Your task to perform on an android device: open wifi settings Image 0: 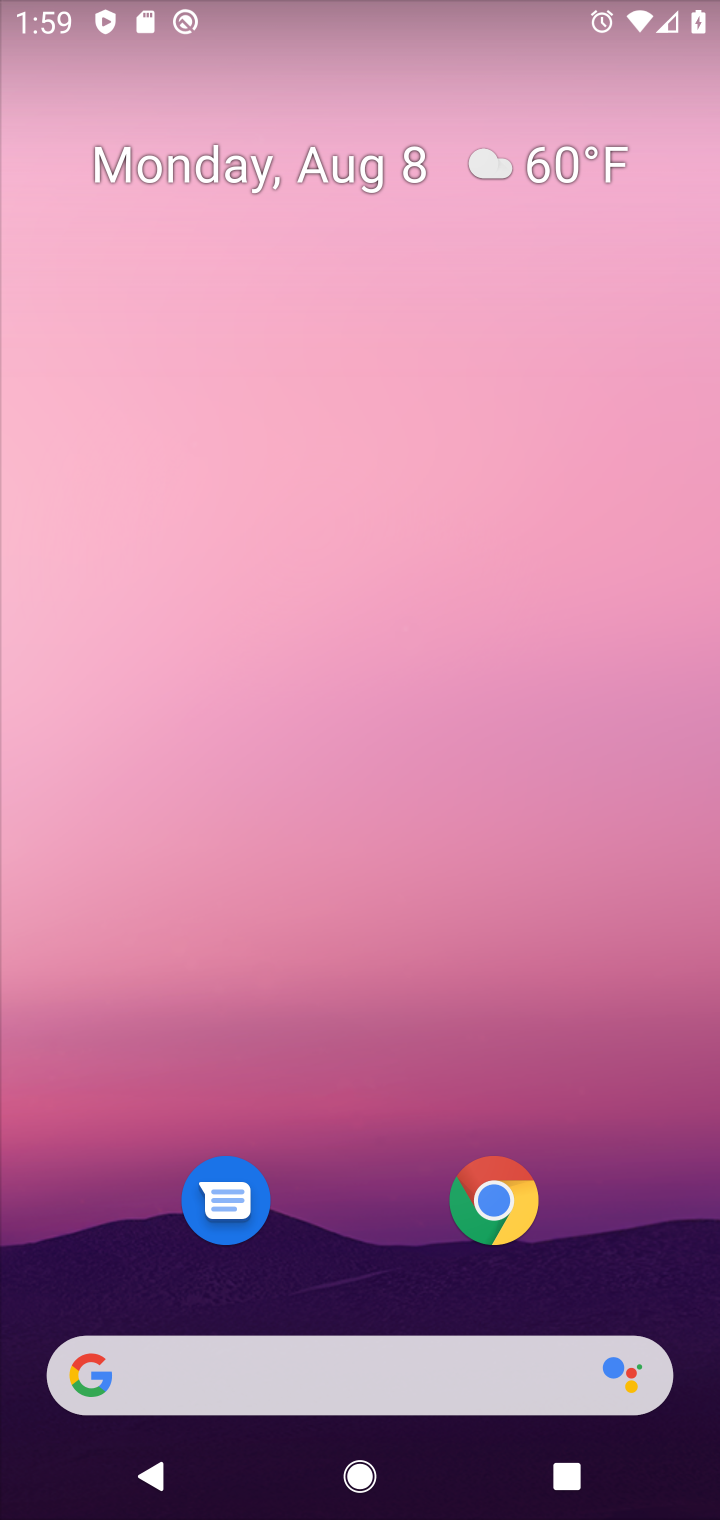
Step 0: drag from (385, 1261) to (452, 206)
Your task to perform on an android device: open wifi settings Image 1: 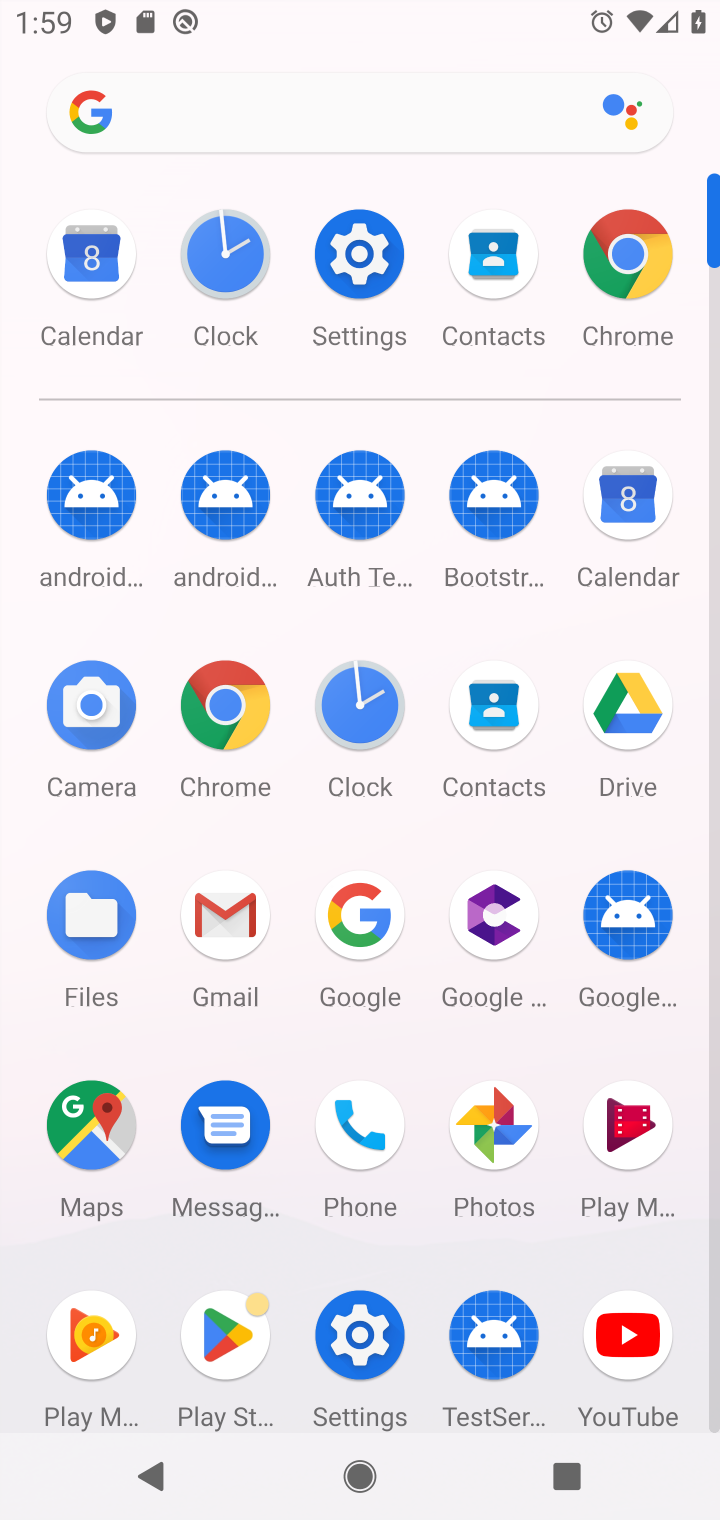
Step 1: click (355, 233)
Your task to perform on an android device: open wifi settings Image 2: 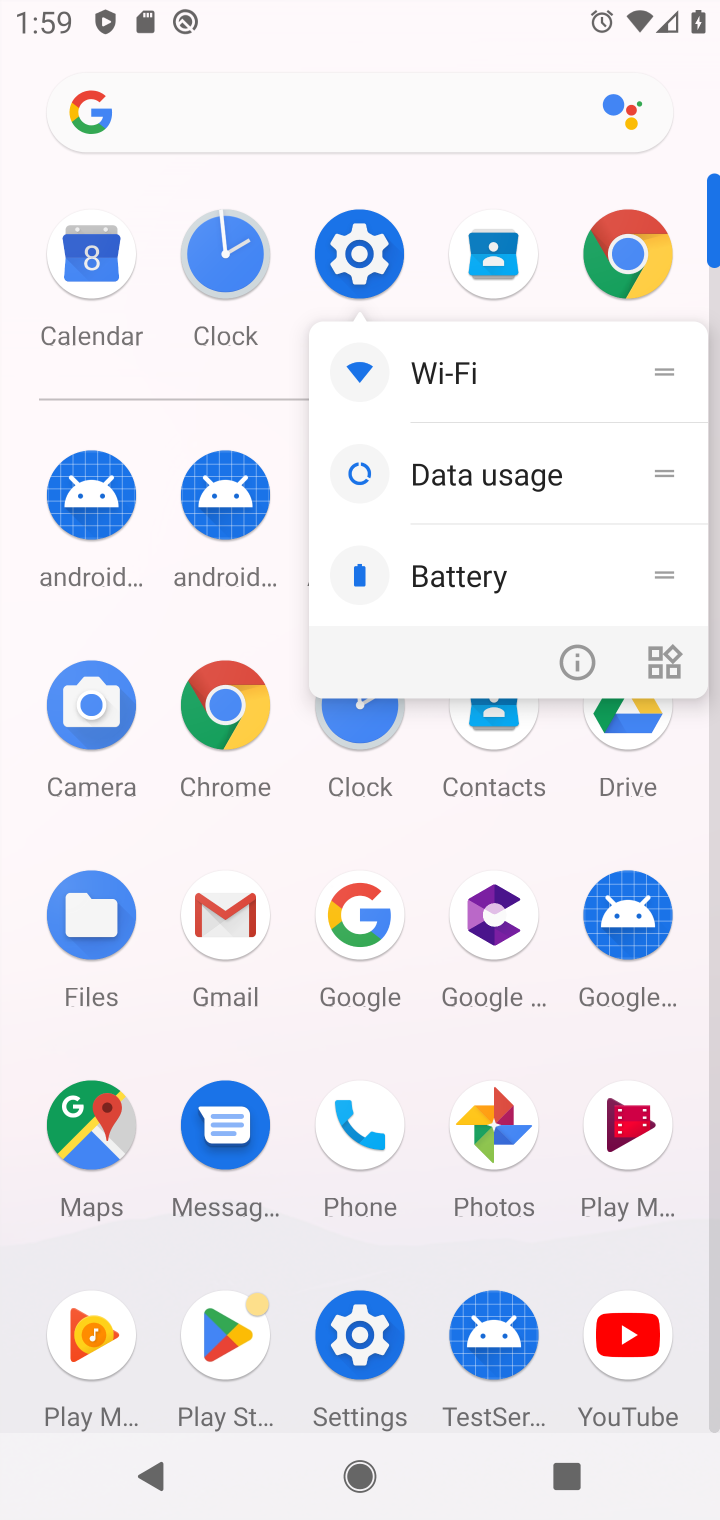
Step 2: click (363, 247)
Your task to perform on an android device: open wifi settings Image 3: 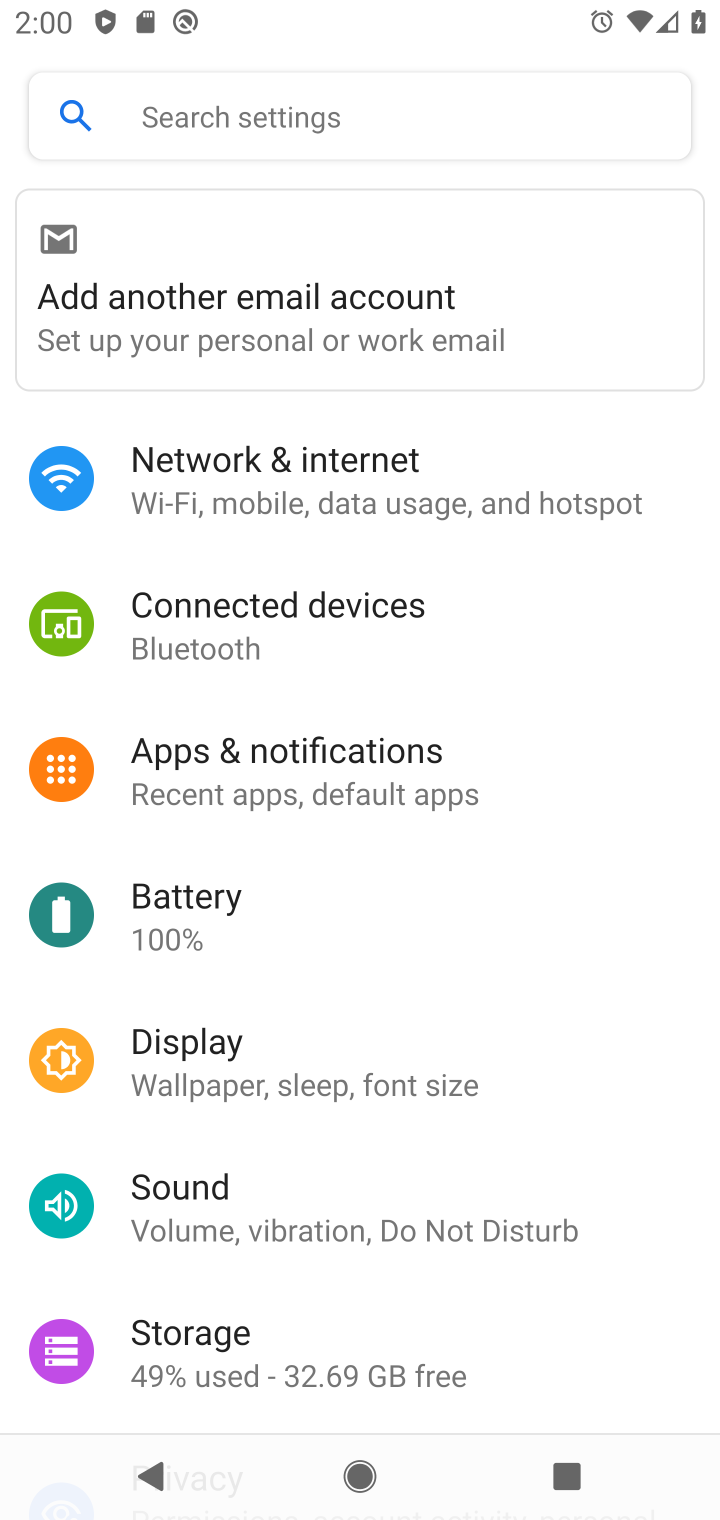
Step 3: click (293, 465)
Your task to perform on an android device: open wifi settings Image 4: 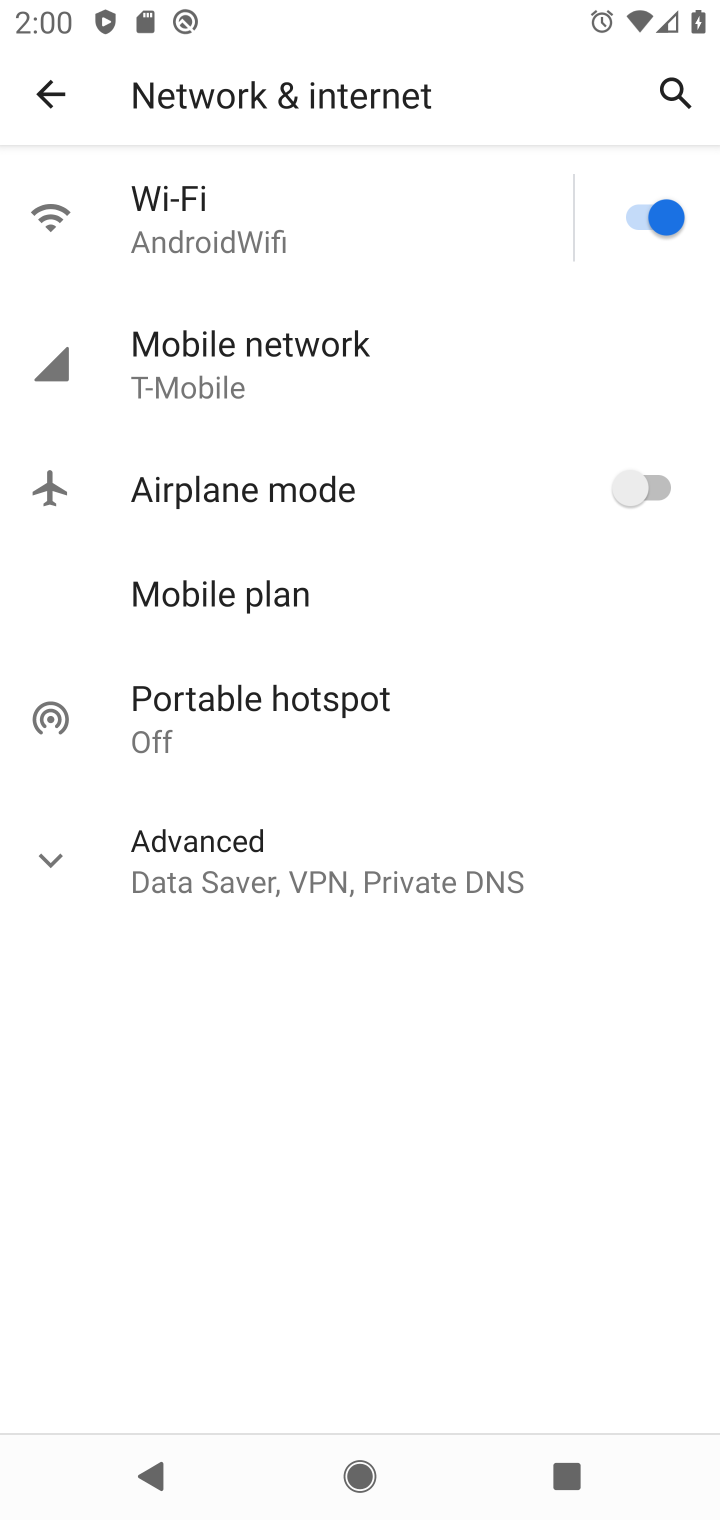
Step 4: click (311, 214)
Your task to perform on an android device: open wifi settings Image 5: 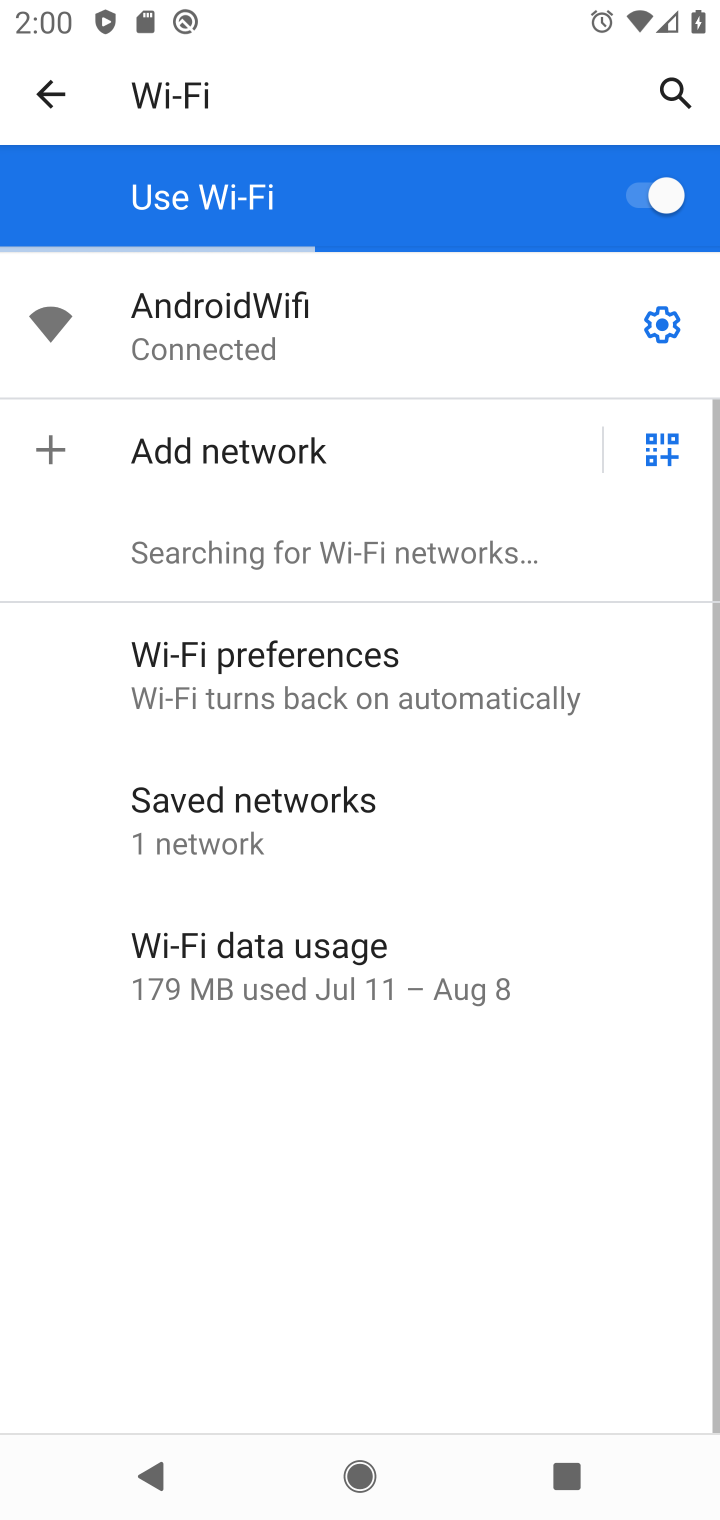
Step 5: task complete